Your task to perform on an android device: choose inbox layout in the gmail app Image 0: 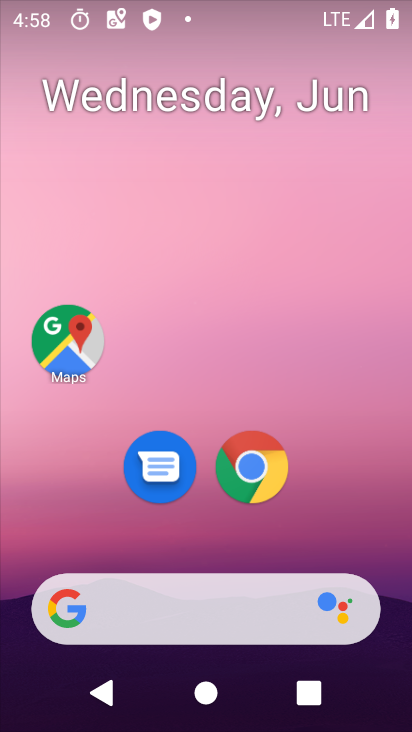
Step 0: drag from (332, 523) to (216, 19)
Your task to perform on an android device: choose inbox layout in the gmail app Image 1: 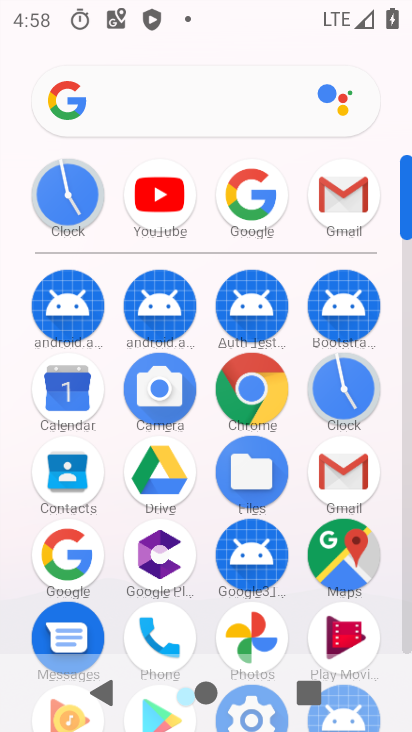
Step 1: click (339, 466)
Your task to perform on an android device: choose inbox layout in the gmail app Image 2: 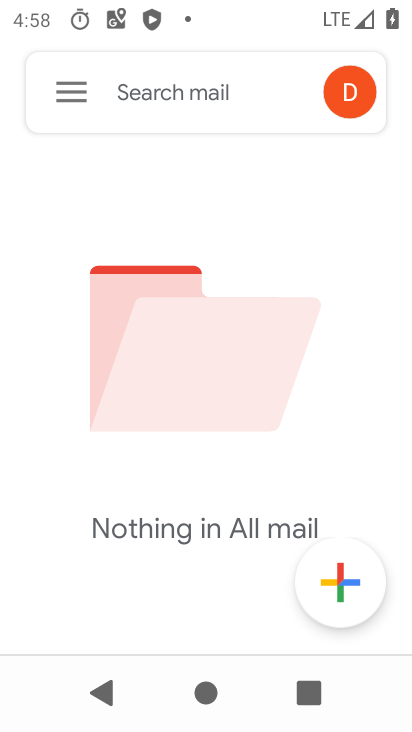
Step 2: click (61, 77)
Your task to perform on an android device: choose inbox layout in the gmail app Image 3: 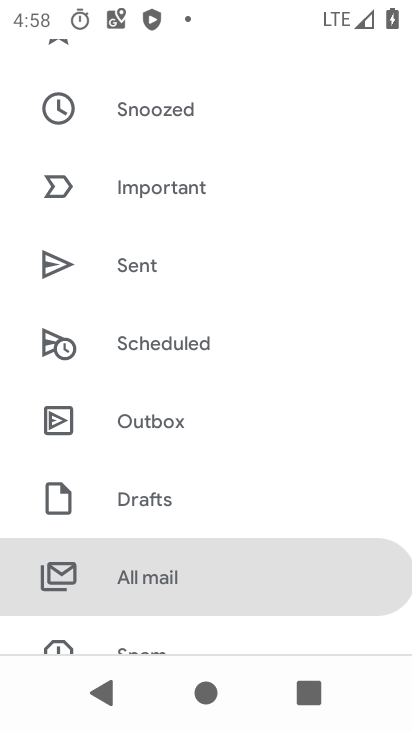
Step 3: drag from (214, 520) to (183, 74)
Your task to perform on an android device: choose inbox layout in the gmail app Image 4: 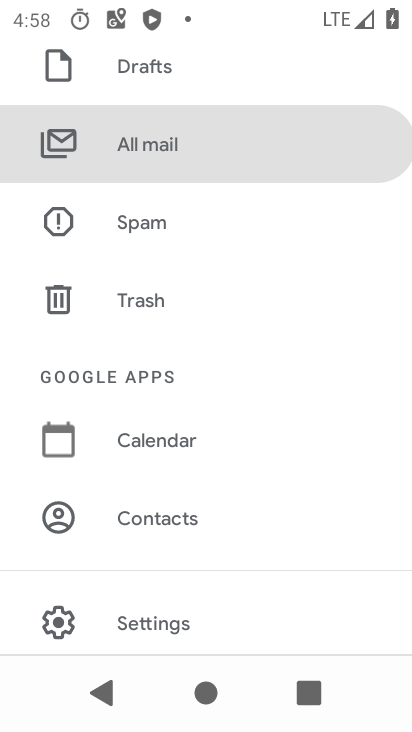
Step 4: click (195, 612)
Your task to perform on an android device: choose inbox layout in the gmail app Image 5: 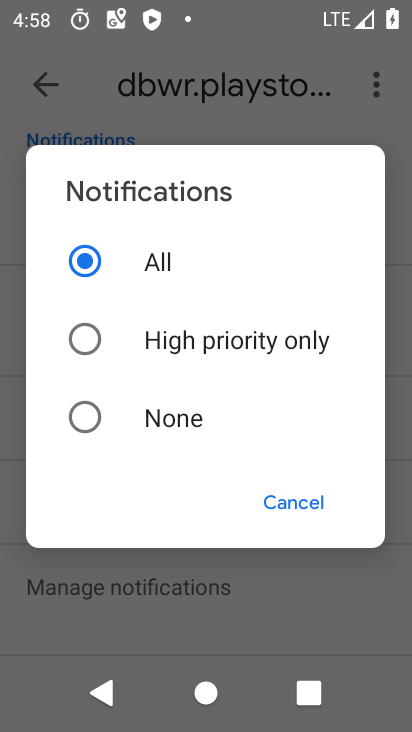
Step 5: click (302, 497)
Your task to perform on an android device: choose inbox layout in the gmail app Image 6: 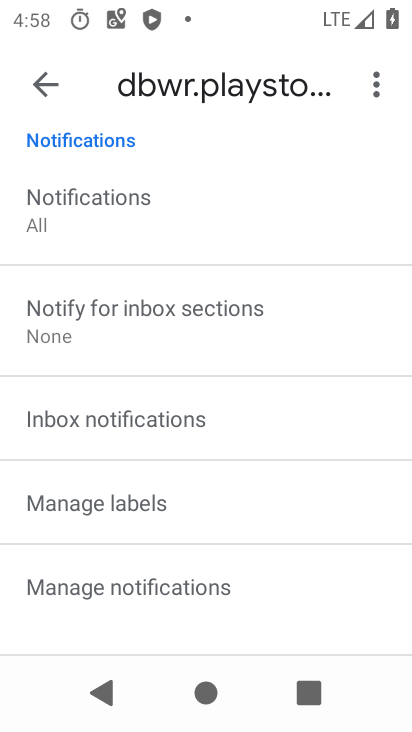
Step 6: drag from (221, 263) to (191, 666)
Your task to perform on an android device: choose inbox layout in the gmail app Image 7: 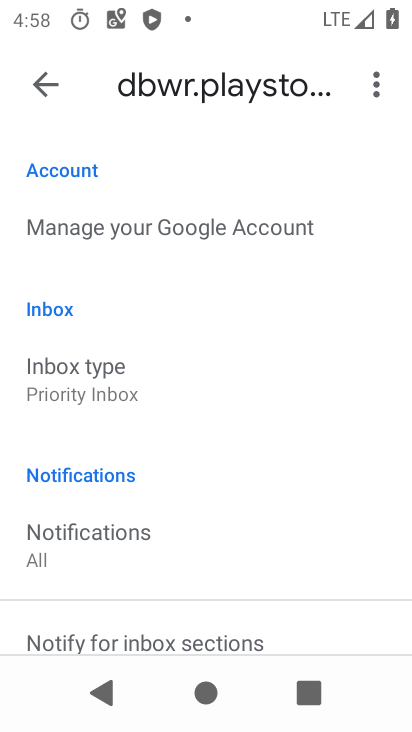
Step 7: click (115, 387)
Your task to perform on an android device: choose inbox layout in the gmail app Image 8: 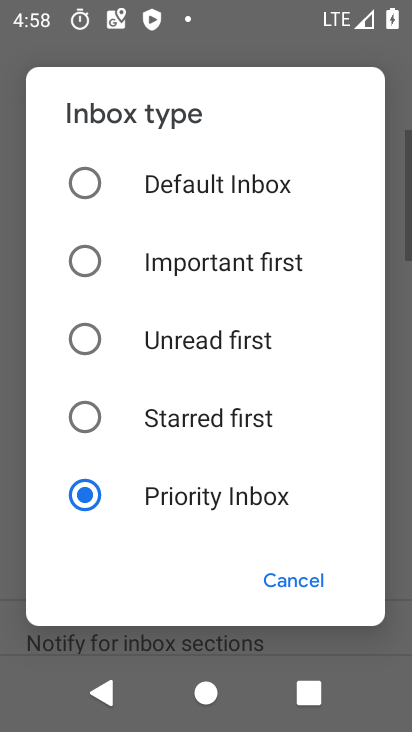
Step 8: click (227, 277)
Your task to perform on an android device: choose inbox layout in the gmail app Image 9: 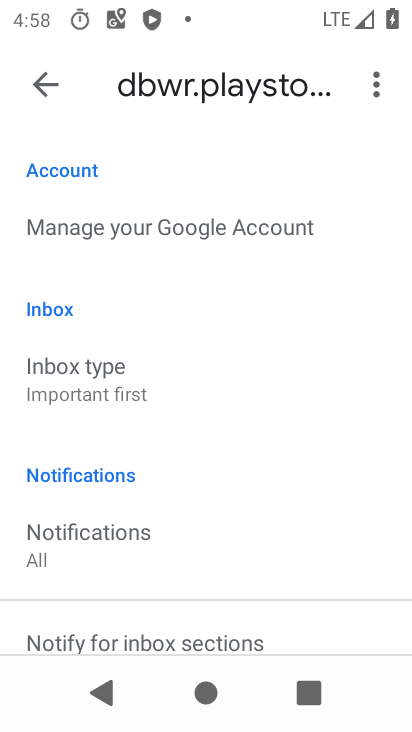
Step 9: task complete